Your task to perform on an android device: Turn off the flashlight Image 0: 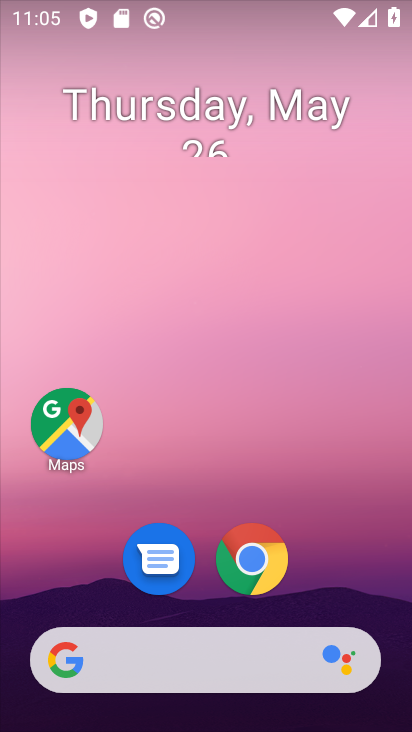
Step 0: drag from (372, 580) to (297, 174)
Your task to perform on an android device: Turn off the flashlight Image 1: 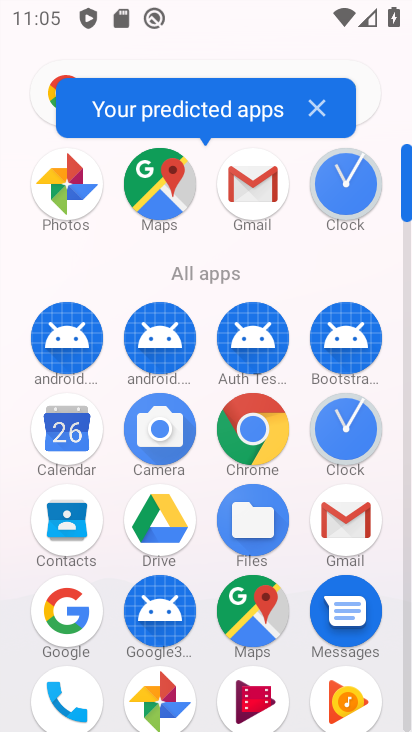
Step 1: click (407, 678)
Your task to perform on an android device: Turn off the flashlight Image 2: 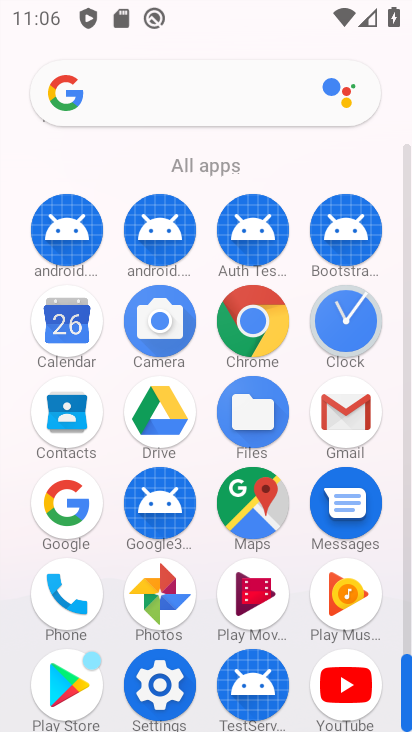
Step 2: drag from (276, 0) to (267, 693)
Your task to perform on an android device: Turn off the flashlight Image 3: 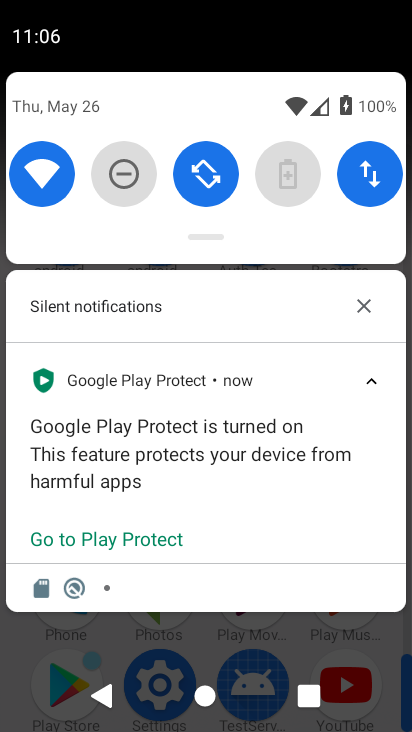
Step 3: drag from (246, 194) to (275, 572)
Your task to perform on an android device: Turn off the flashlight Image 4: 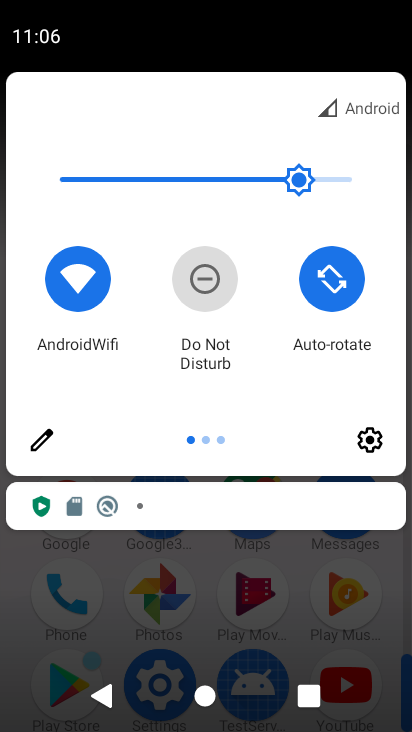
Step 4: click (43, 436)
Your task to perform on an android device: Turn off the flashlight Image 5: 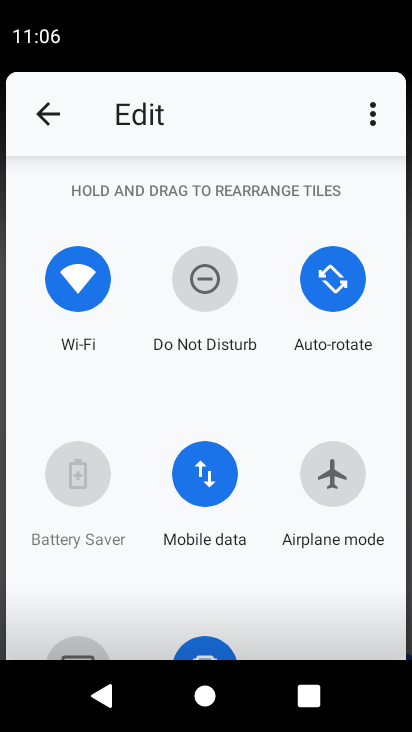
Step 5: task complete